Your task to perform on an android device: toggle notifications settings in the gmail app Image 0: 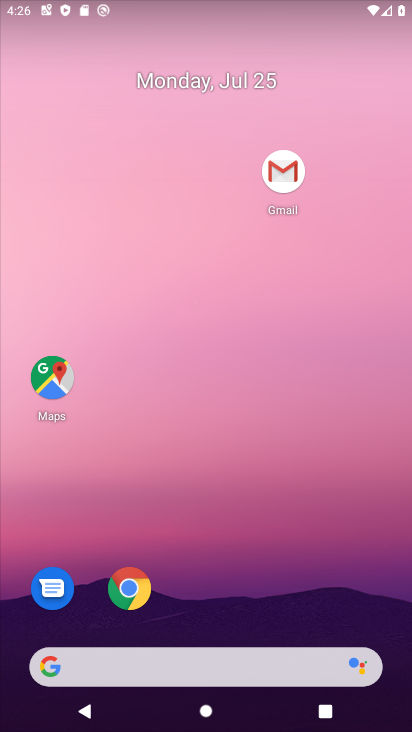
Step 0: drag from (280, 593) to (279, 113)
Your task to perform on an android device: toggle notifications settings in the gmail app Image 1: 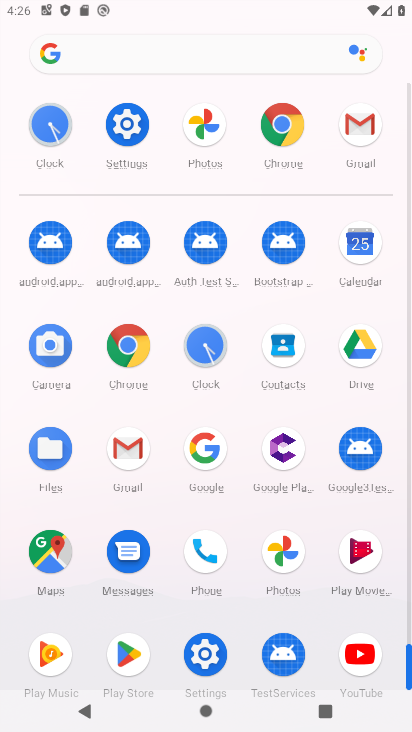
Step 1: click (362, 118)
Your task to perform on an android device: toggle notifications settings in the gmail app Image 2: 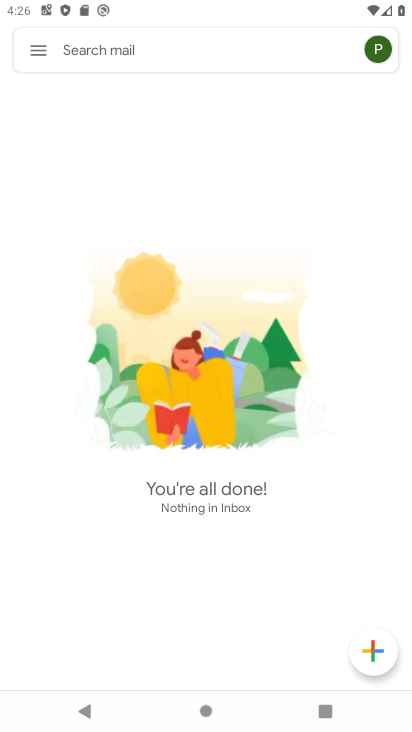
Step 2: click (39, 53)
Your task to perform on an android device: toggle notifications settings in the gmail app Image 3: 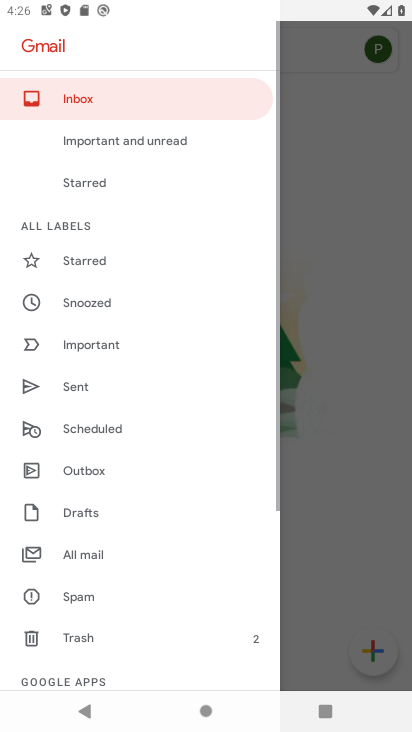
Step 3: drag from (110, 652) to (180, 190)
Your task to perform on an android device: toggle notifications settings in the gmail app Image 4: 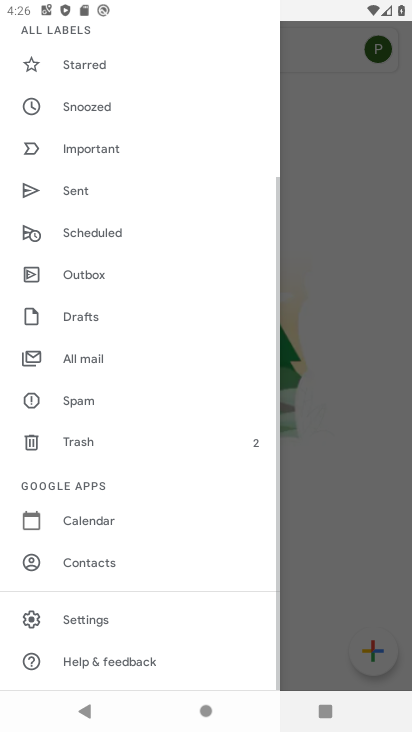
Step 4: click (106, 625)
Your task to perform on an android device: toggle notifications settings in the gmail app Image 5: 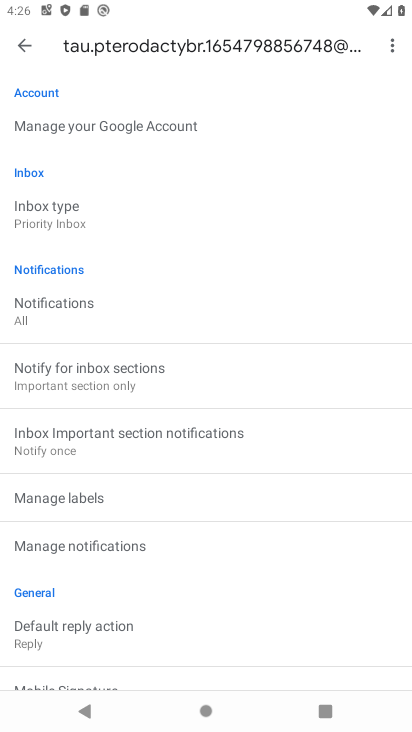
Step 5: click (99, 541)
Your task to perform on an android device: toggle notifications settings in the gmail app Image 6: 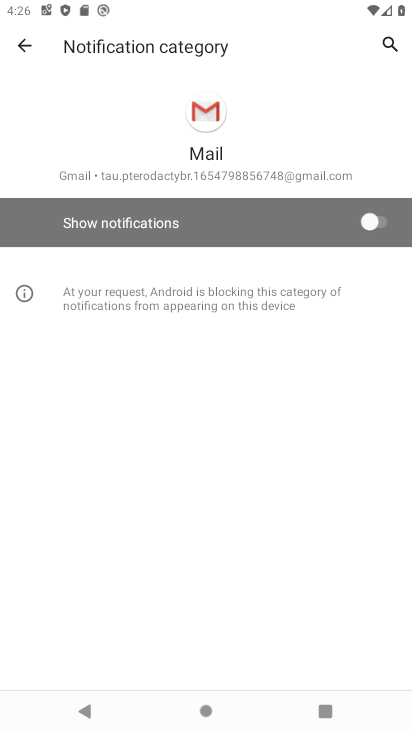
Step 6: click (366, 228)
Your task to perform on an android device: toggle notifications settings in the gmail app Image 7: 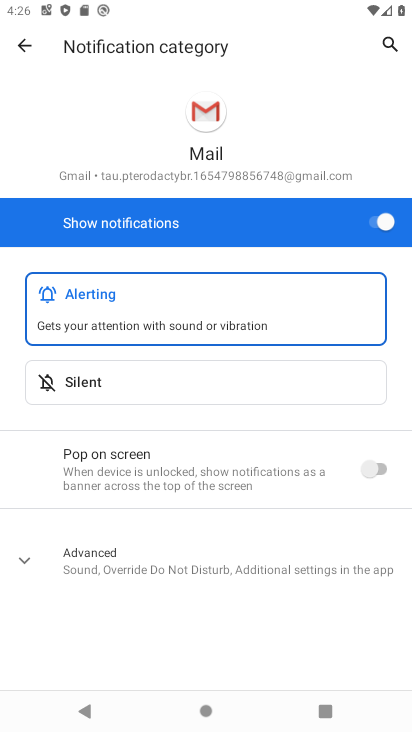
Step 7: task complete